Your task to perform on an android device: Search for pizza restaurants on Maps Image 0: 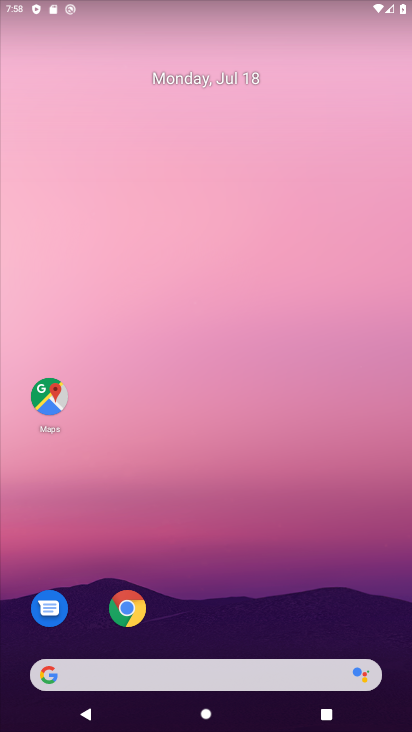
Step 0: drag from (191, 311) to (210, 263)
Your task to perform on an android device: Search for pizza restaurants on Maps Image 1: 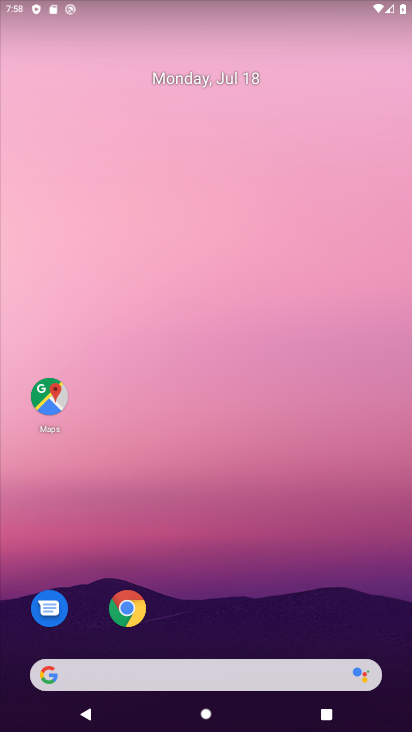
Step 1: drag from (42, 609) to (153, 290)
Your task to perform on an android device: Search for pizza restaurants on Maps Image 2: 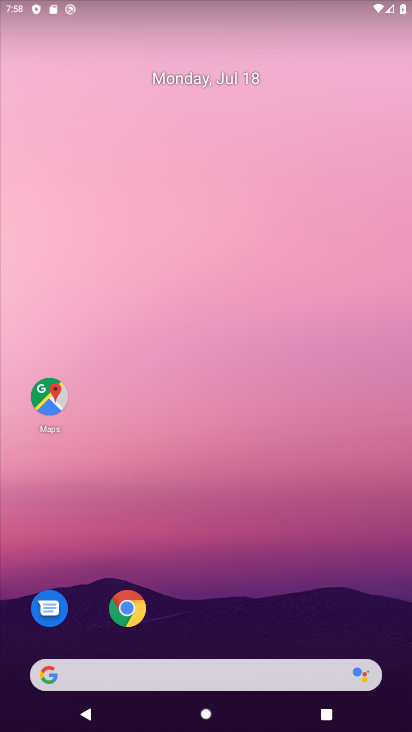
Step 2: click (44, 400)
Your task to perform on an android device: Search for pizza restaurants on Maps Image 3: 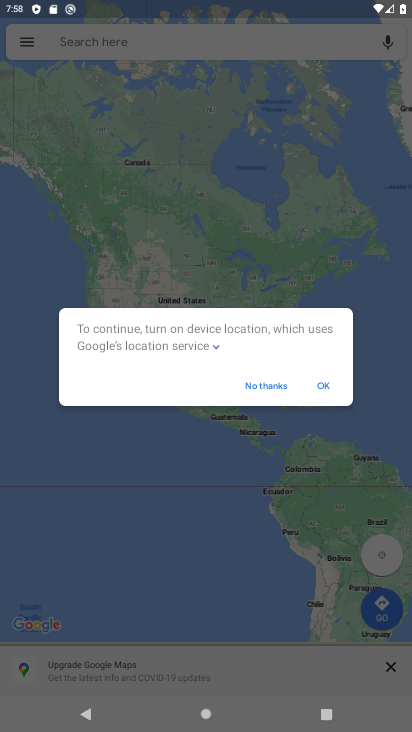
Step 3: click (335, 386)
Your task to perform on an android device: Search for pizza restaurants on Maps Image 4: 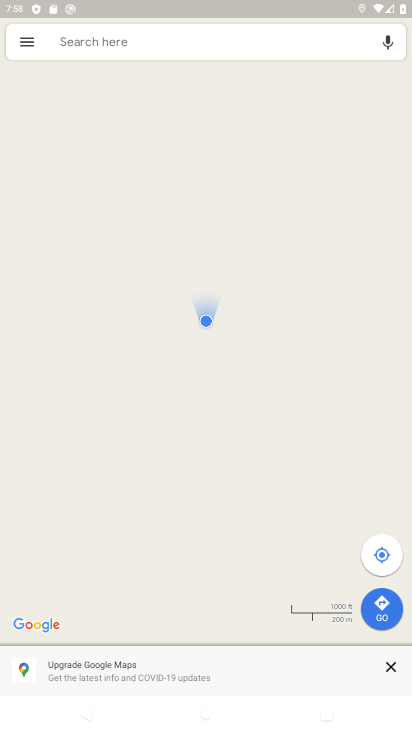
Step 4: click (70, 42)
Your task to perform on an android device: Search for pizza restaurants on Maps Image 5: 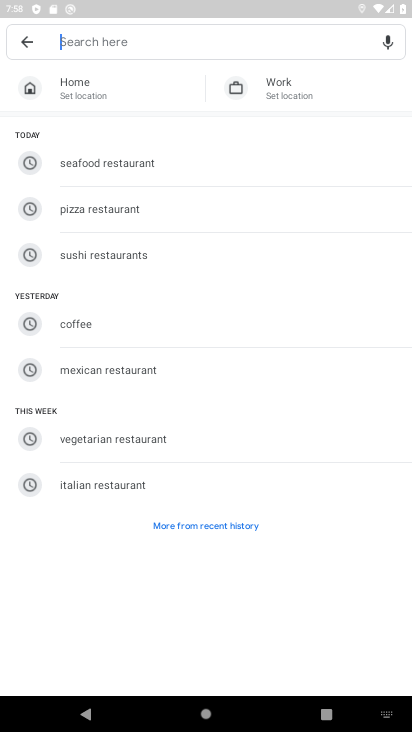
Step 5: click (96, 203)
Your task to perform on an android device: Search for pizza restaurants on Maps Image 6: 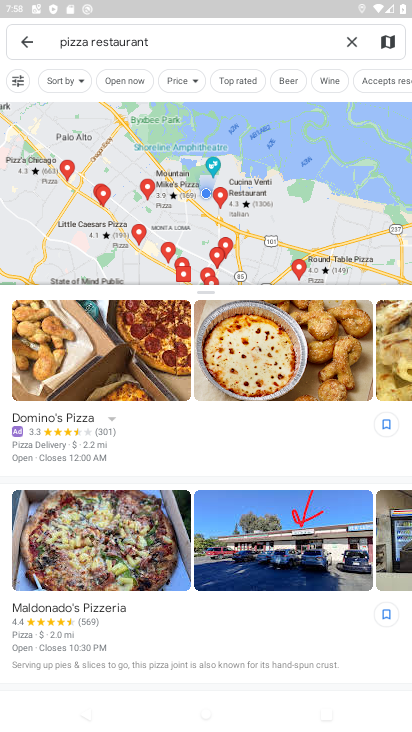
Step 6: task complete